Your task to perform on an android device: set an alarm Image 0: 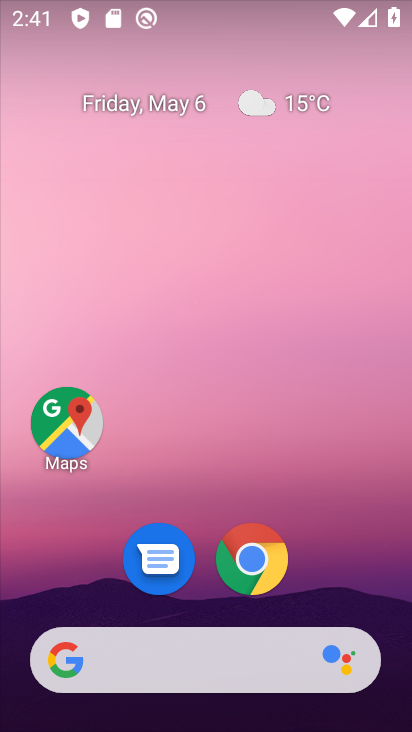
Step 0: drag from (338, 320) to (336, 34)
Your task to perform on an android device: set an alarm Image 1: 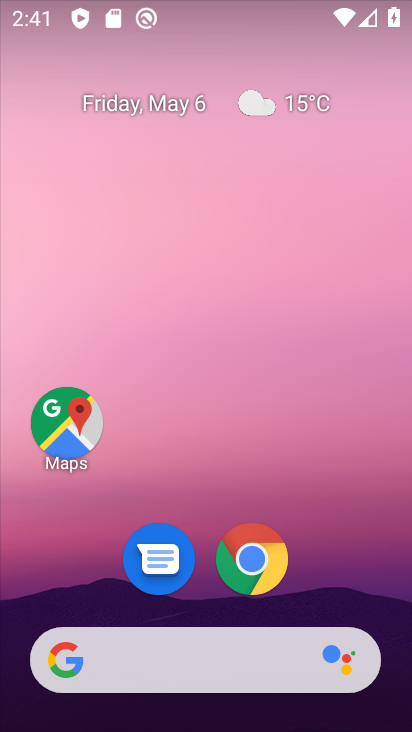
Step 1: drag from (317, 559) to (316, 144)
Your task to perform on an android device: set an alarm Image 2: 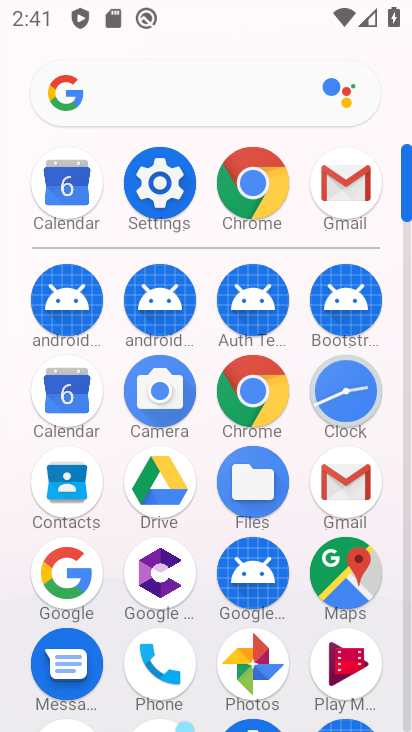
Step 2: click (166, 182)
Your task to perform on an android device: set an alarm Image 3: 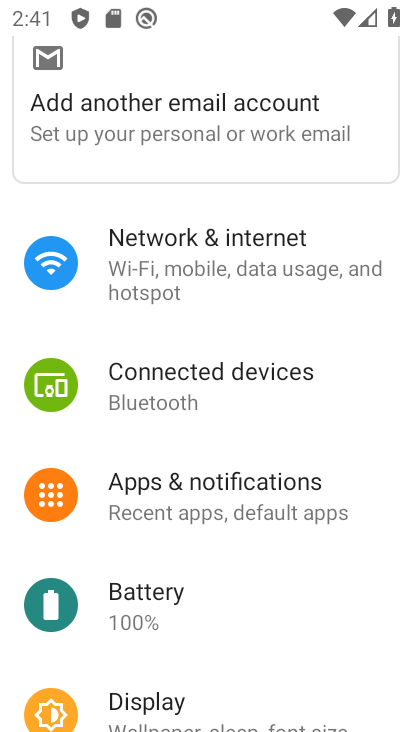
Step 3: press home button
Your task to perform on an android device: set an alarm Image 4: 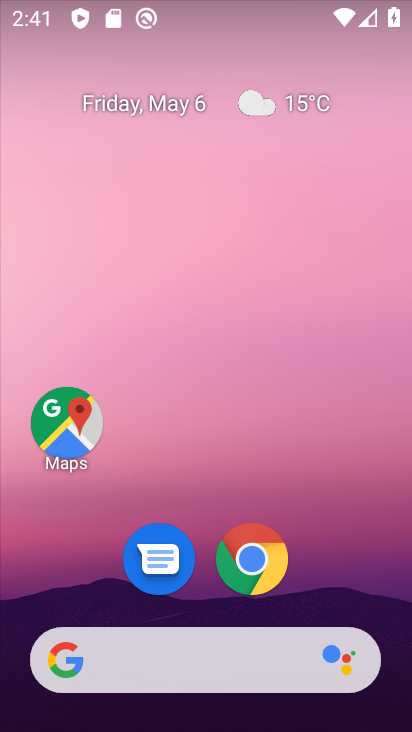
Step 4: drag from (221, 456) to (270, 71)
Your task to perform on an android device: set an alarm Image 5: 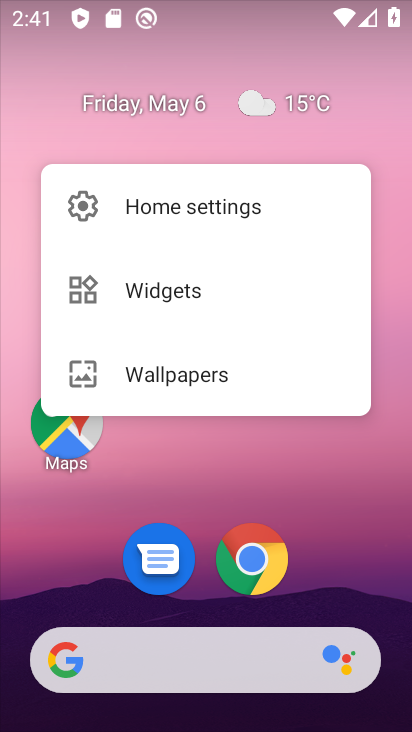
Step 5: click (357, 471)
Your task to perform on an android device: set an alarm Image 6: 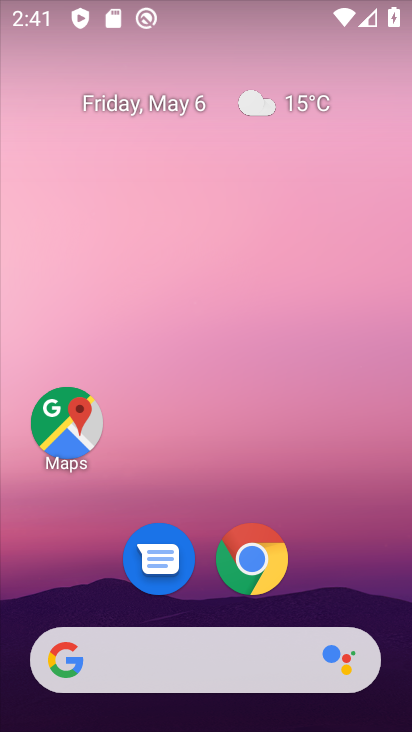
Step 6: drag from (213, 521) to (211, 42)
Your task to perform on an android device: set an alarm Image 7: 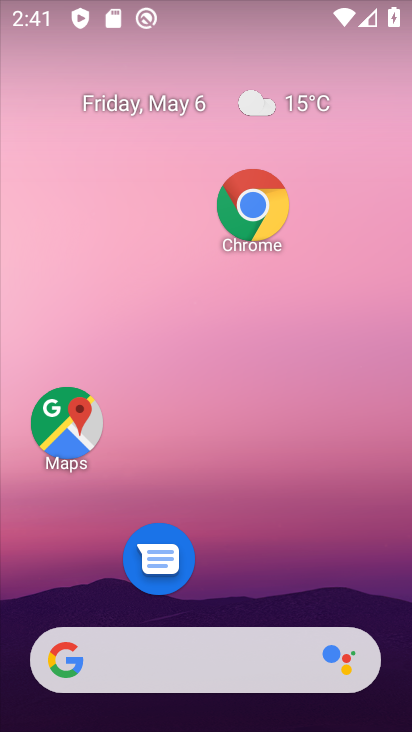
Step 7: drag from (245, 578) to (258, 174)
Your task to perform on an android device: set an alarm Image 8: 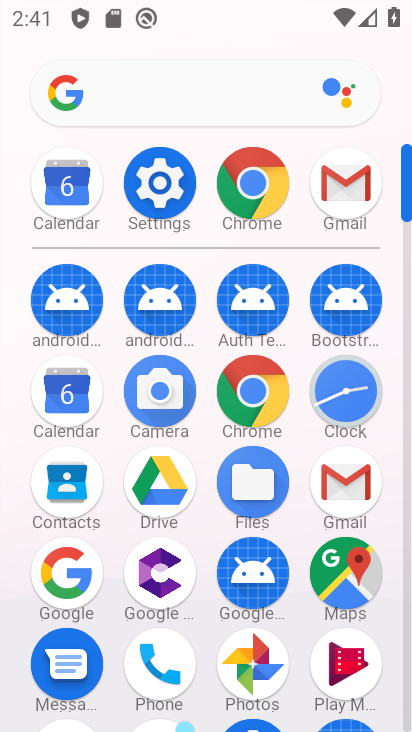
Step 8: click (356, 415)
Your task to perform on an android device: set an alarm Image 9: 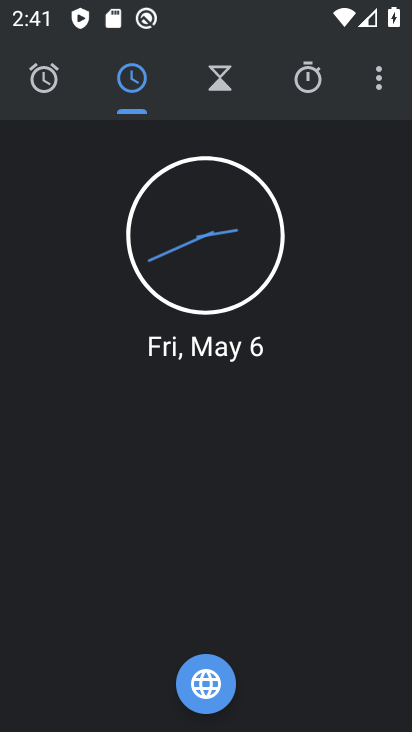
Step 9: click (59, 108)
Your task to perform on an android device: set an alarm Image 10: 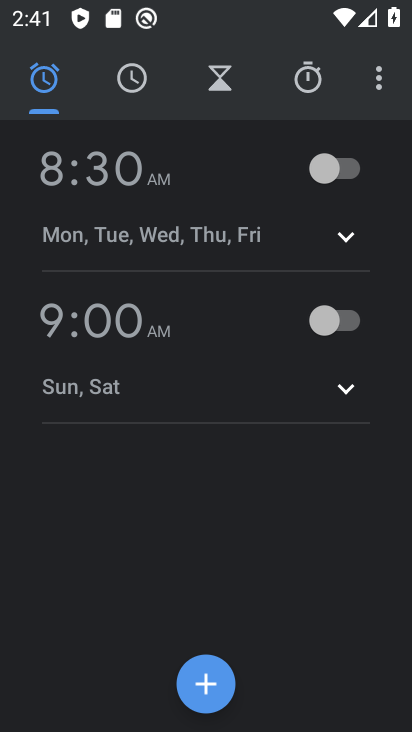
Step 10: task complete